Your task to perform on an android device: delete the emails in spam in the gmail app Image 0: 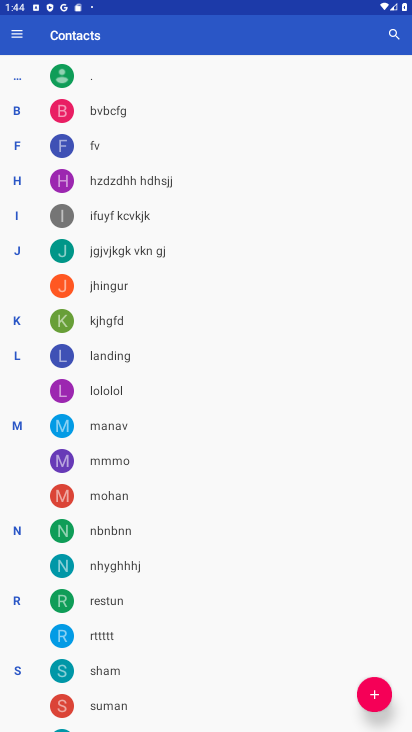
Step 0: press home button
Your task to perform on an android device: delete the emails in spam in the gmail app Image 1: 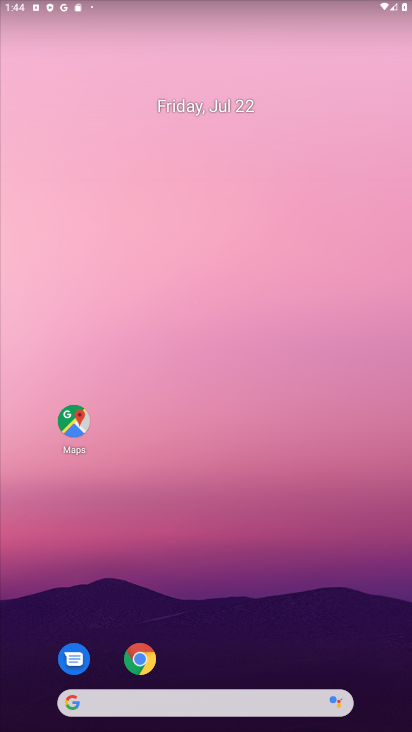
Step 1: drag from (270, 706) to (226, 169)
Your task to perform on an android device: delete the emails in spam in the gmail app Image 2: 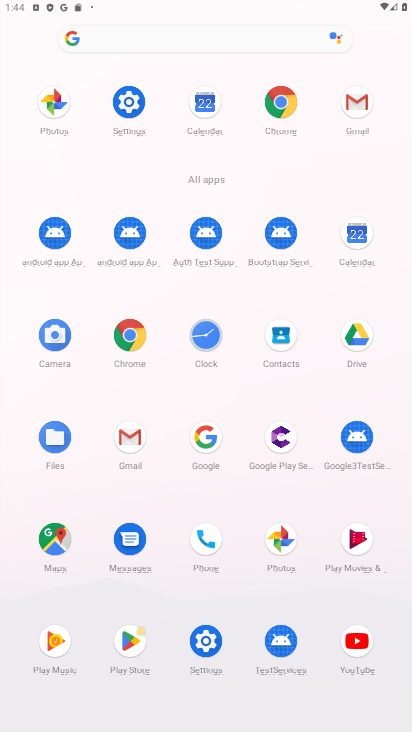
Step 2: click (349, 109)
Your task to perform on an android device: delete the emails in spam in the gmail app Image 3: 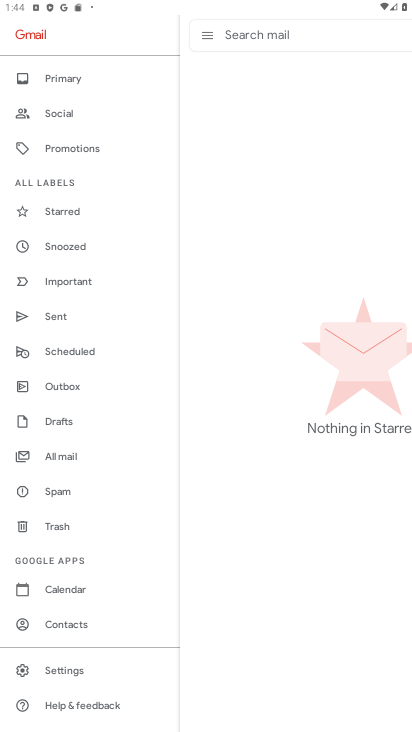
Step 3: click (82, 494)
Your task to perform on an android device: delete the emails in spam in the gmail app Image 4: 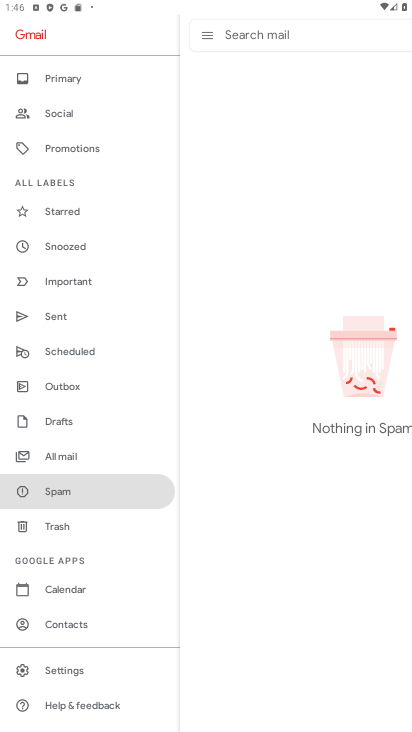
Step 4: task complete